Your task to perform on an android device: install app "ZOOM Cloud Meetings" Image 0: 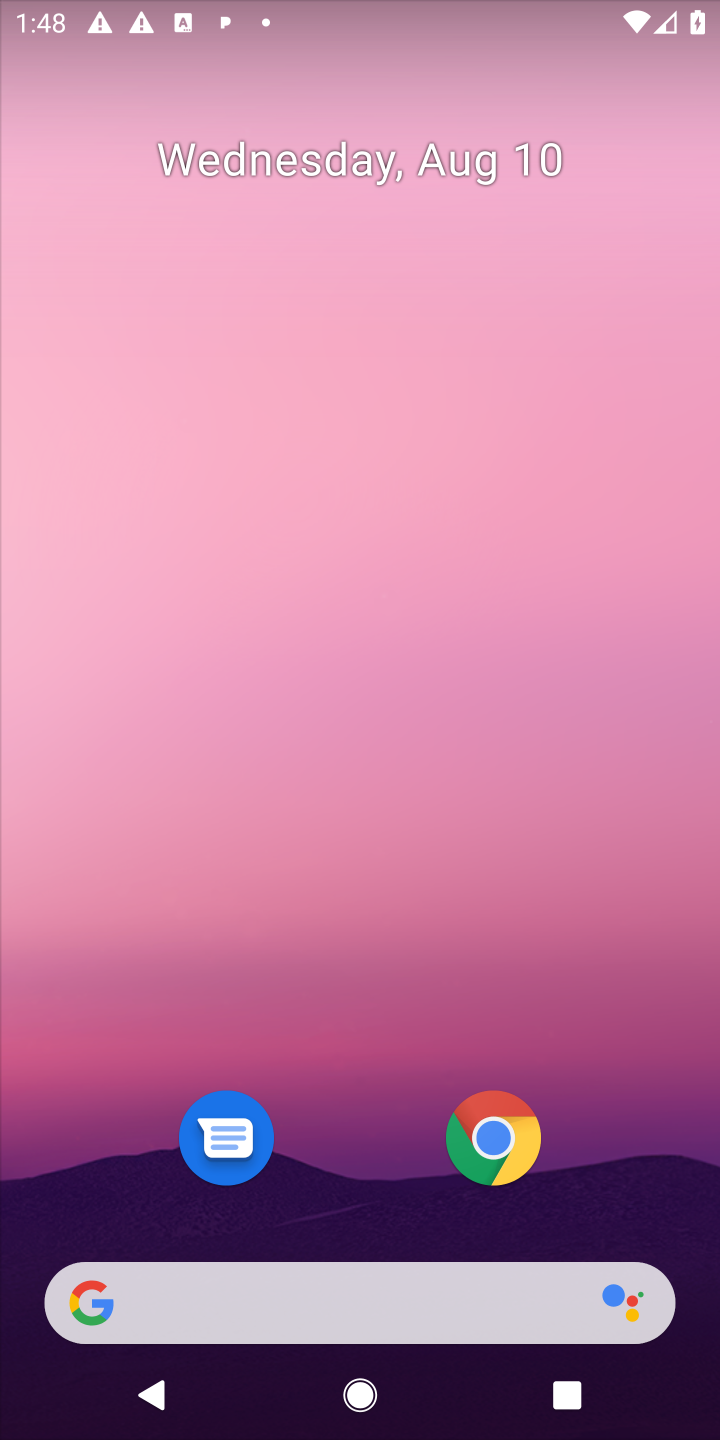
Step 0: press home button
Your task to perform on an android device: install app "ZOOM Cloud Meetings" Image 1: 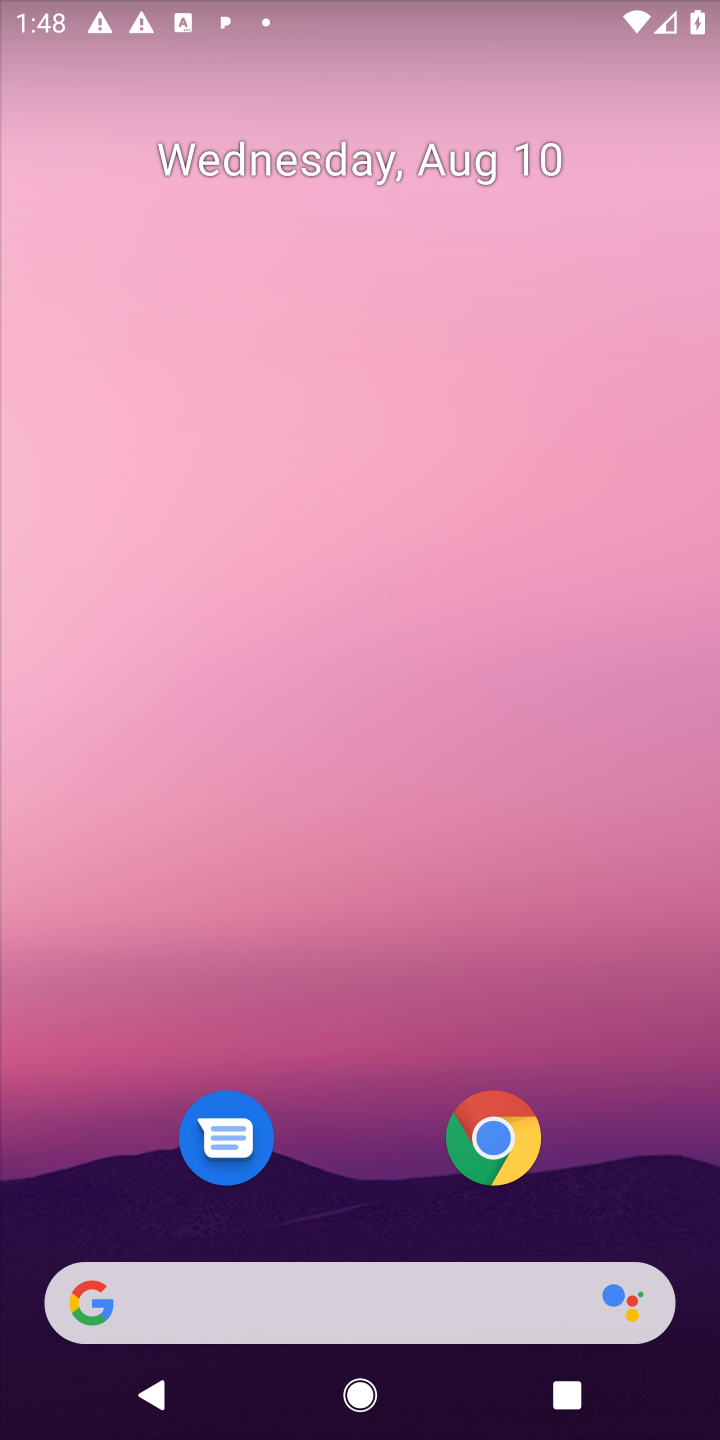
Step 1: drag from (581, 1198) to (580, 96)
Your task to perform on an android device: install app "ZOOM Cloud Meetings" Image 2: 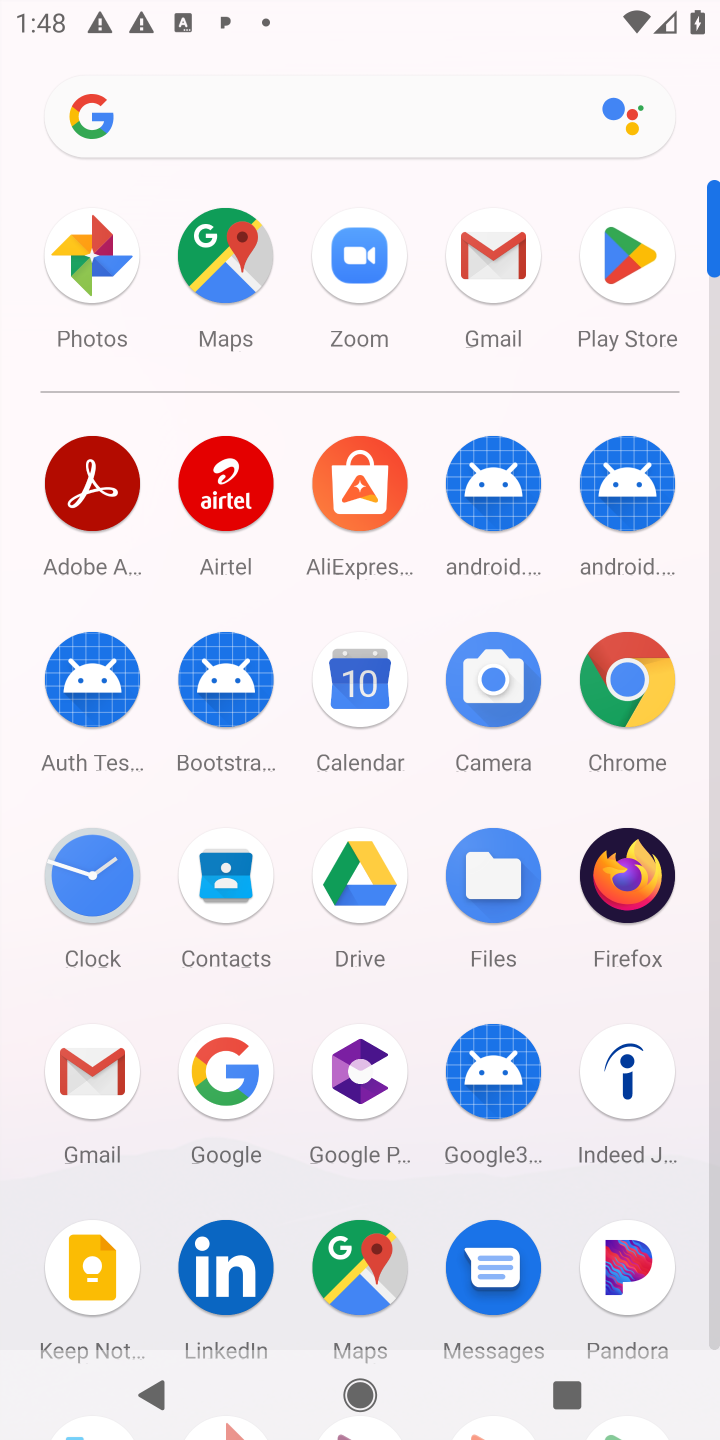
Step 2: click (620, 260)
Your task to perform on an android device: install app "ZOOM Cloud Meetings" Image 3: 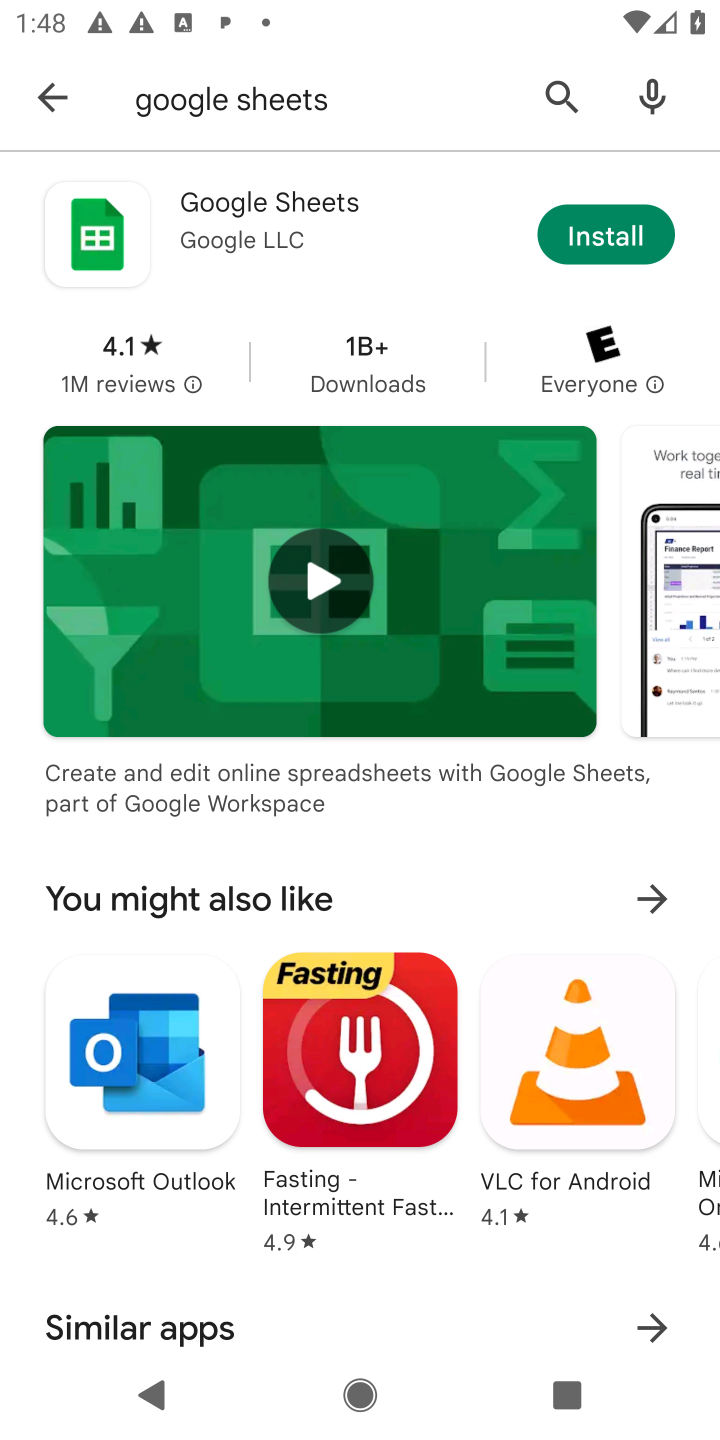
Step 3: click (558, 87)
Your task to perform on an android device: install app "ZOOM Cloud Meetings" Image 4: 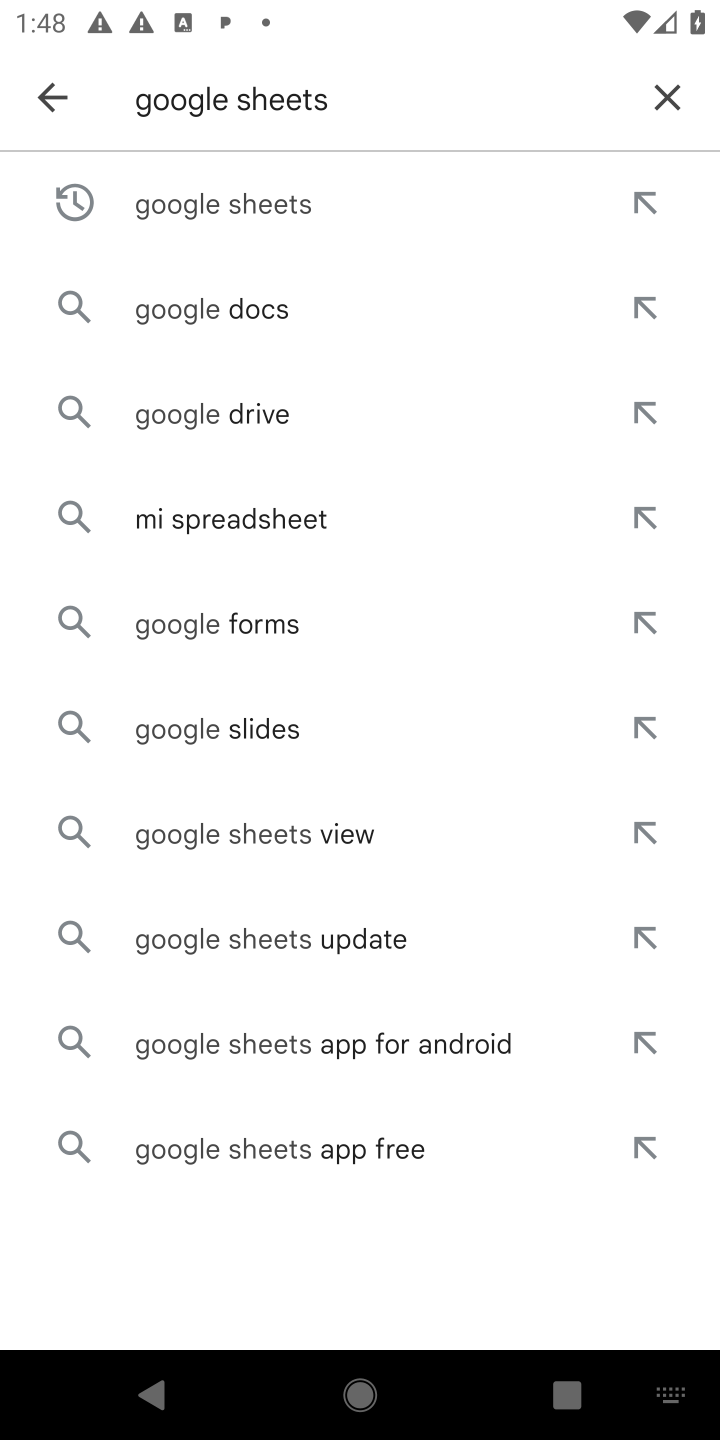
Step 4: click (660, 91)
Your task to perform on an android device: install app "ZOOM Cloud Meetings" Image 5: 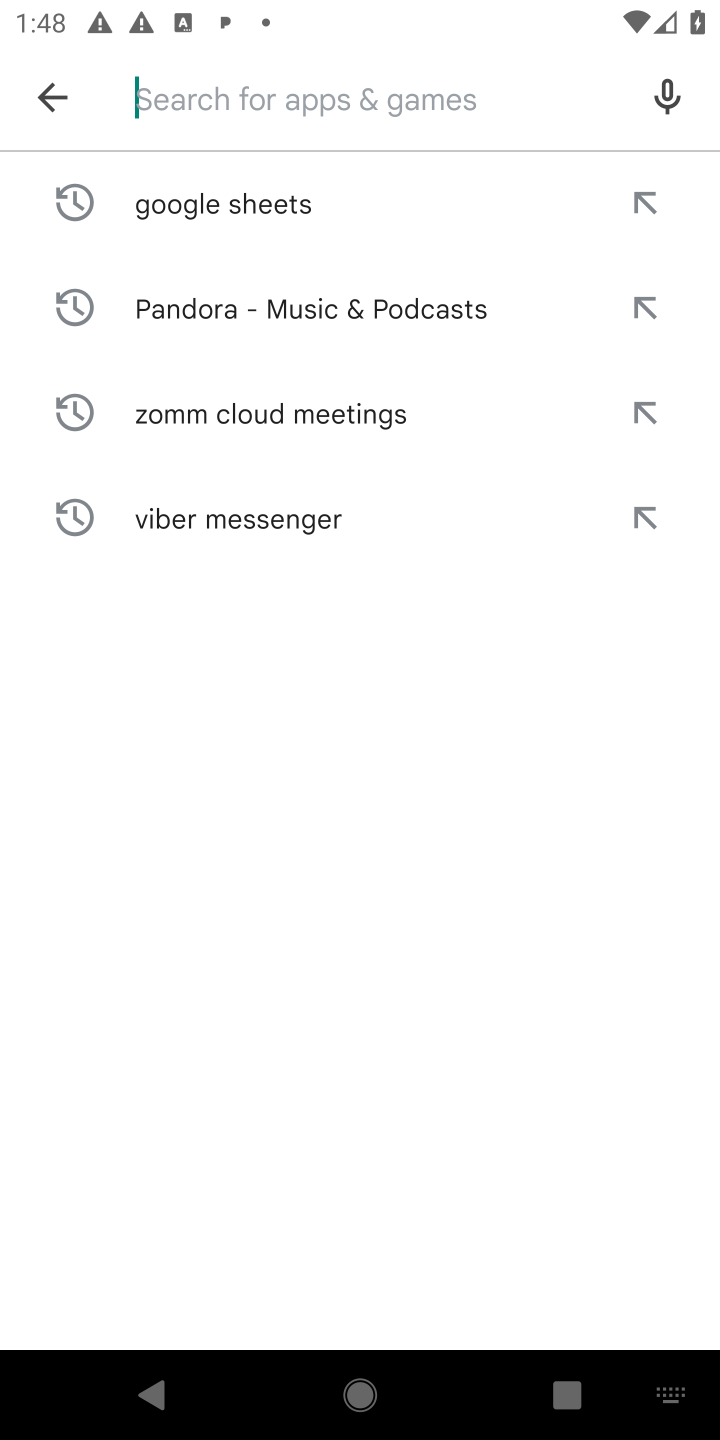
Step 5: type "ZOOM Cloud Meetings"
Your task to perform on an android device: install app "ZOOM Cloud Meetings" Image 6: 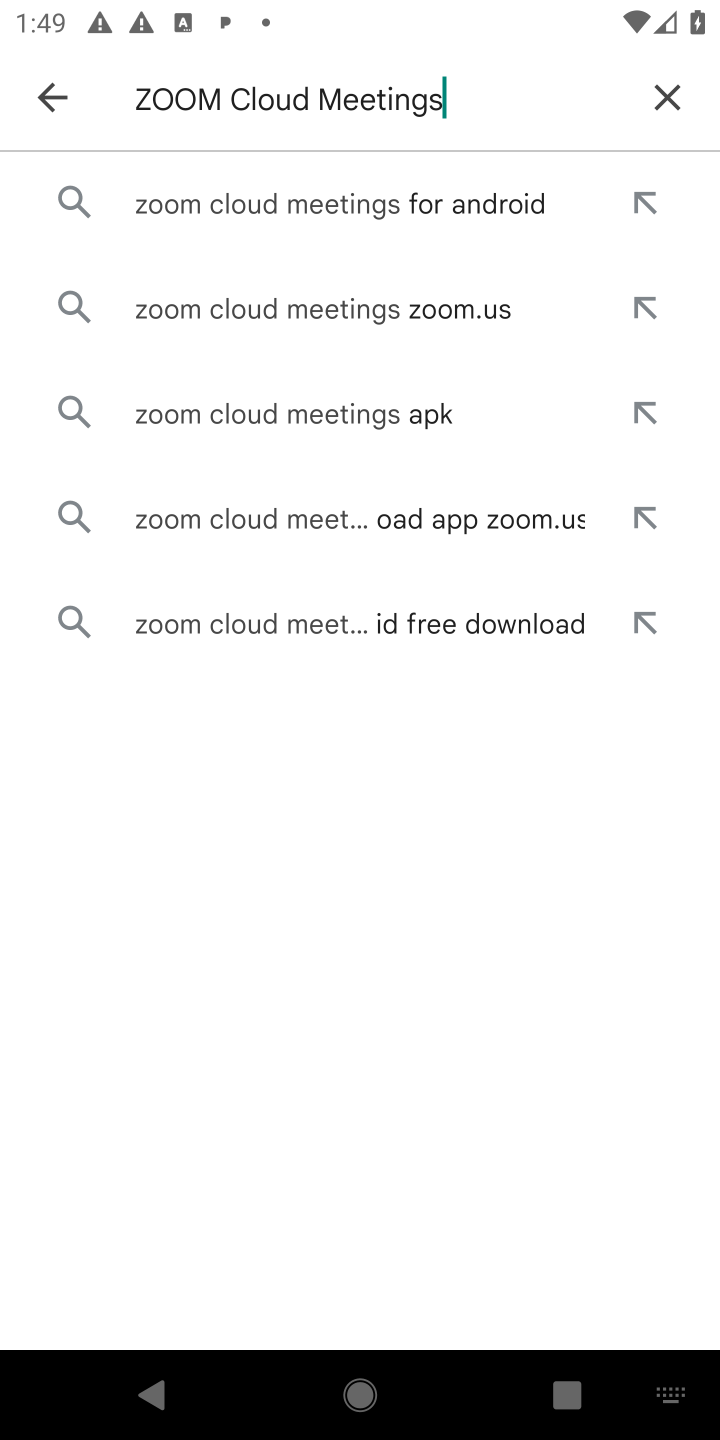
Step 6: click (444, 199)
Your task to perform on an android device: install app "ZOOM Cloud Meetings" Image 7: 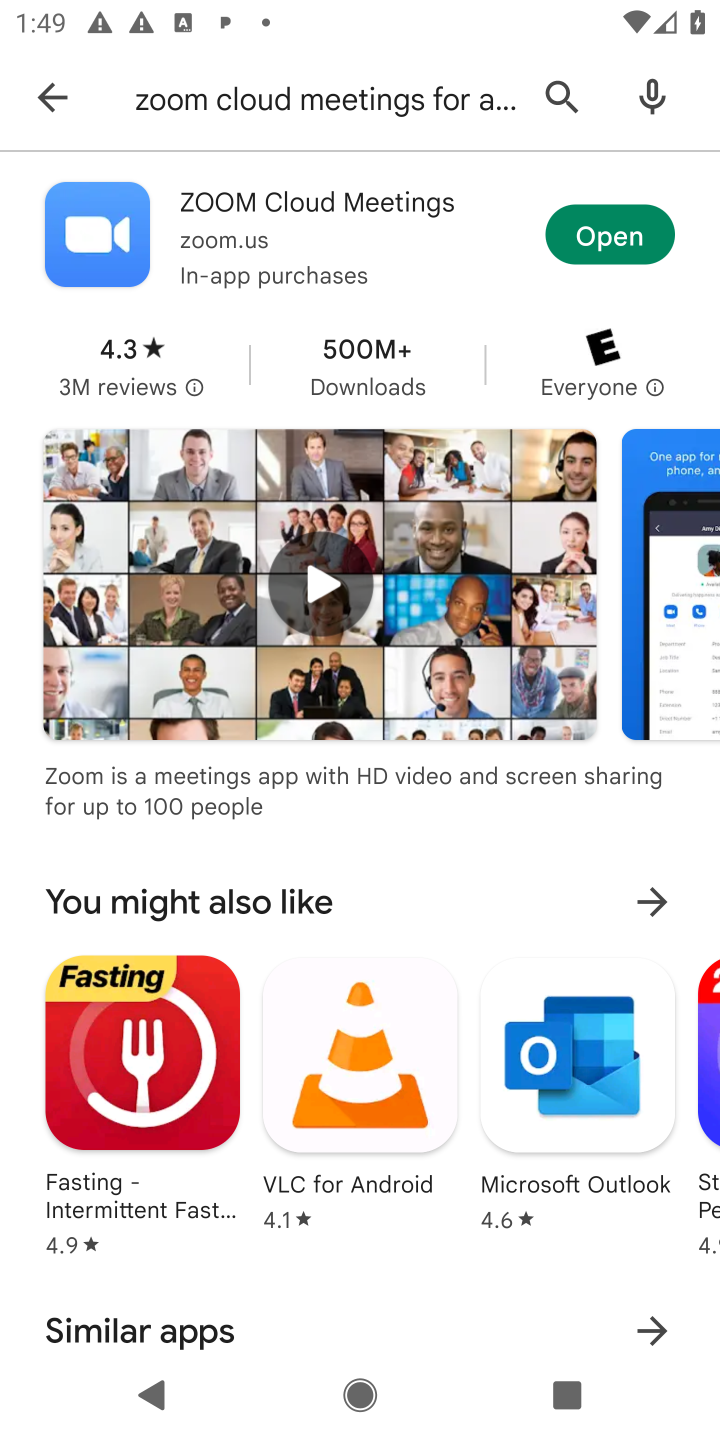
Step 7: task complete